Your task to perform on an android device: Show me recent news Image 0: 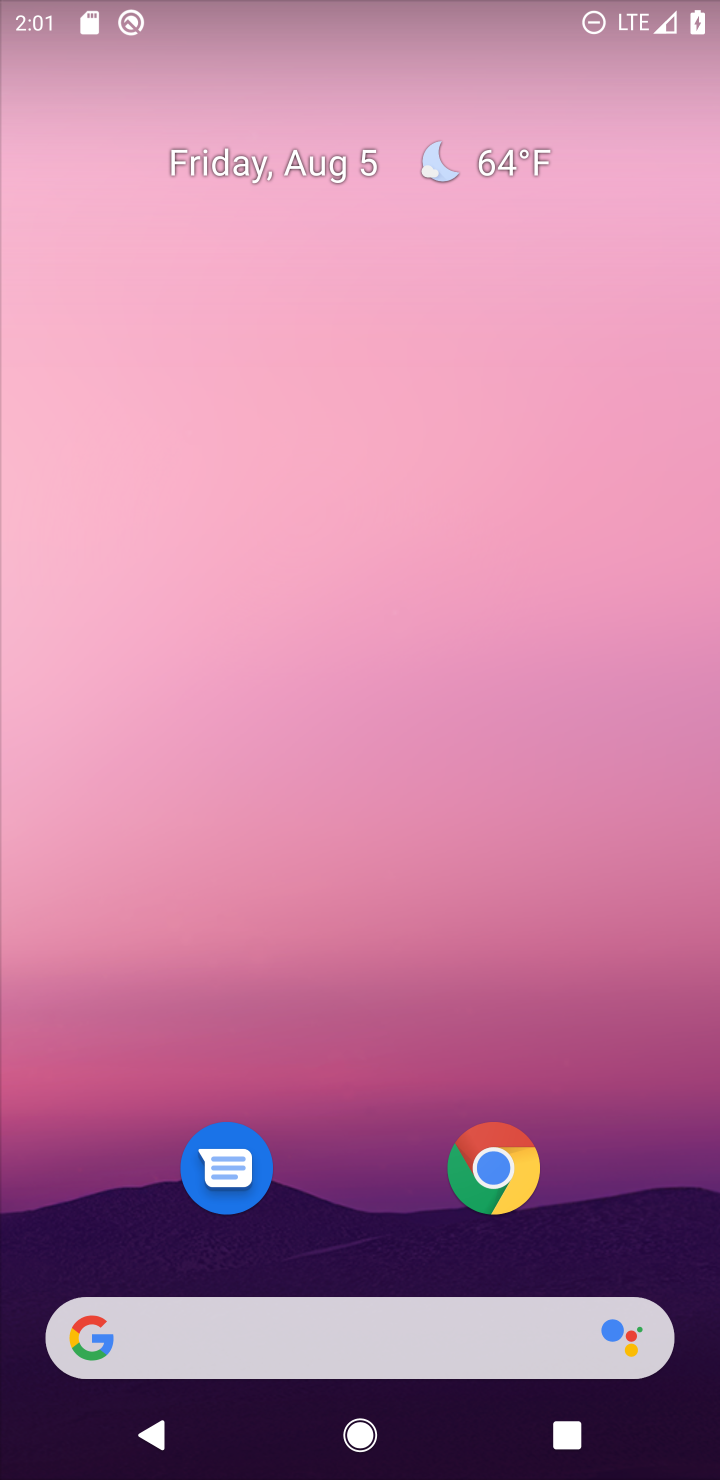
Step 0: drag from (622, 1229) to (415, 80)
Your task to perform on an android device: Show me recent news Image 1: 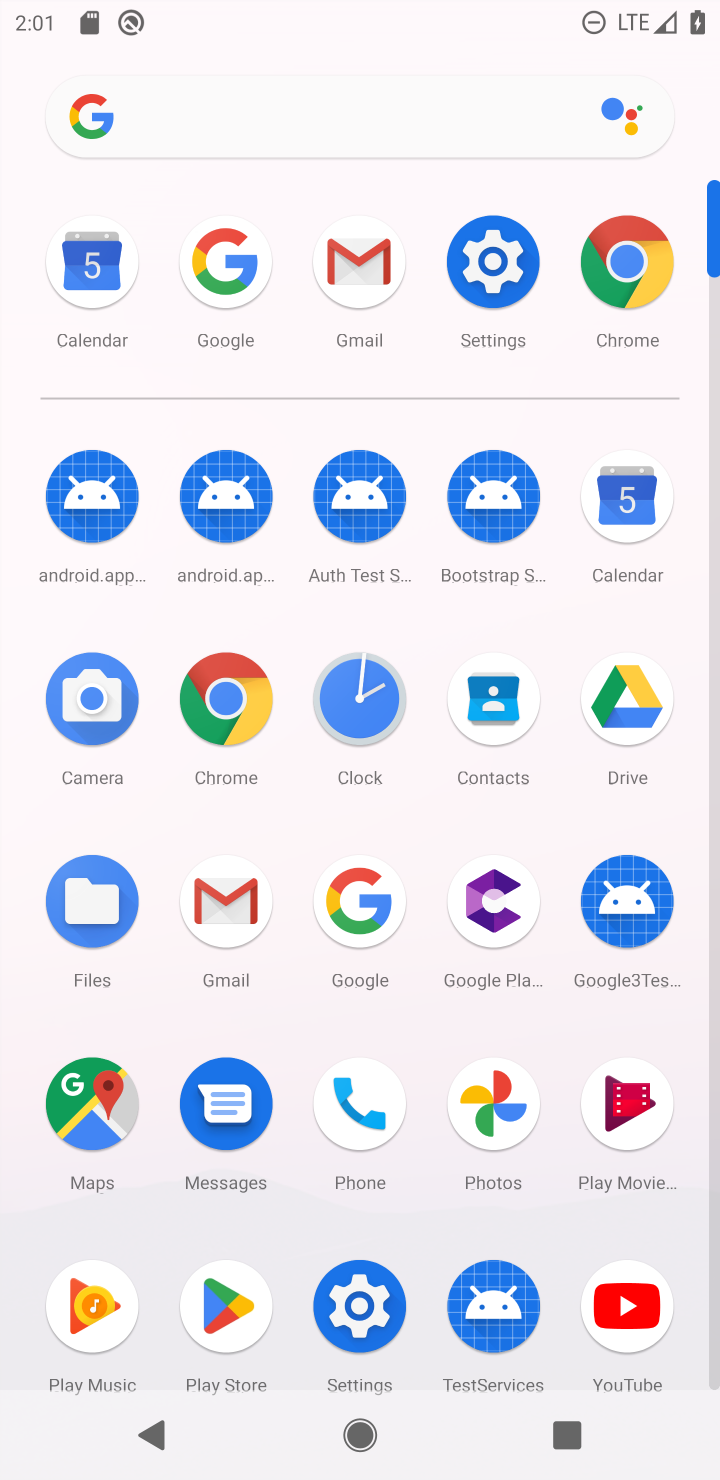
Step 1: click (355, 912)
Your task to perform on an android device: Show me recent news Image 2: 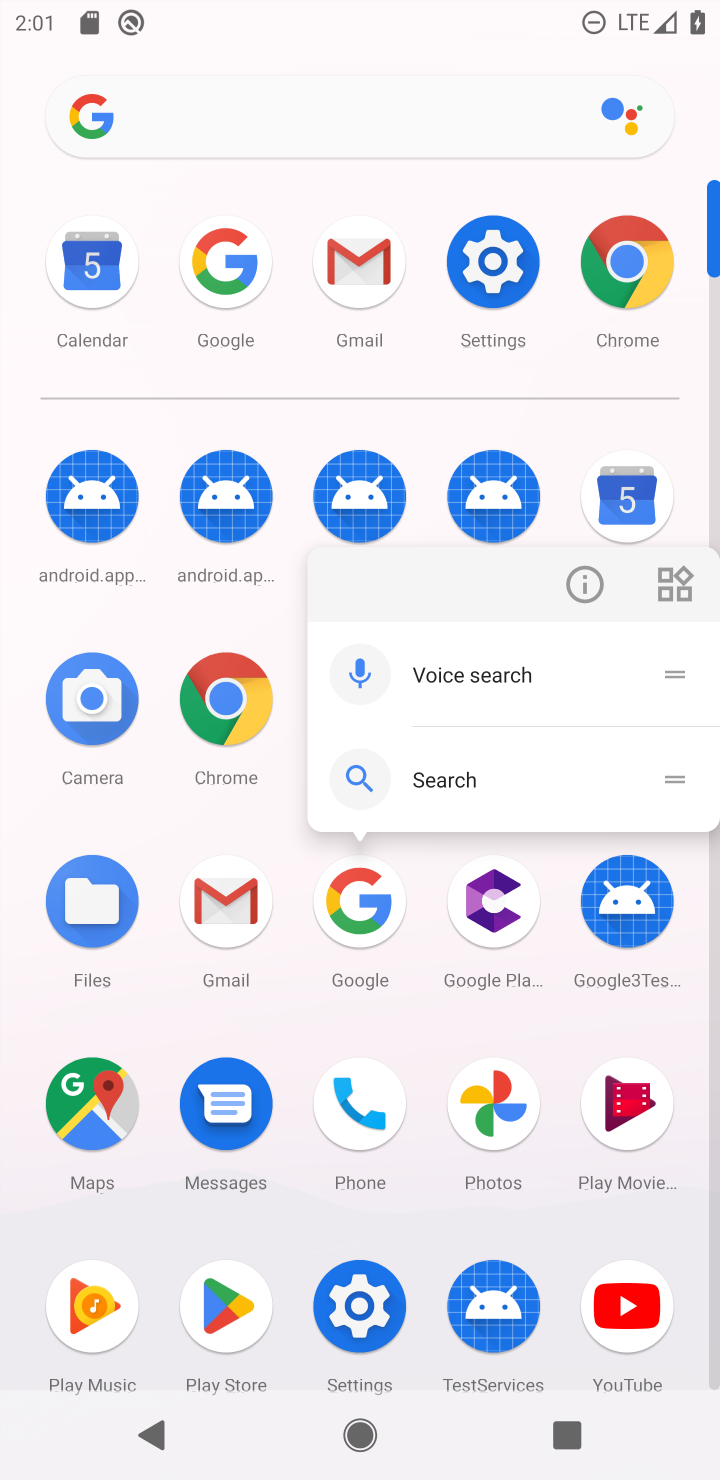
Step 2: click (355, 885)
Your task to perform on an android device: Show me recent news Image 3: 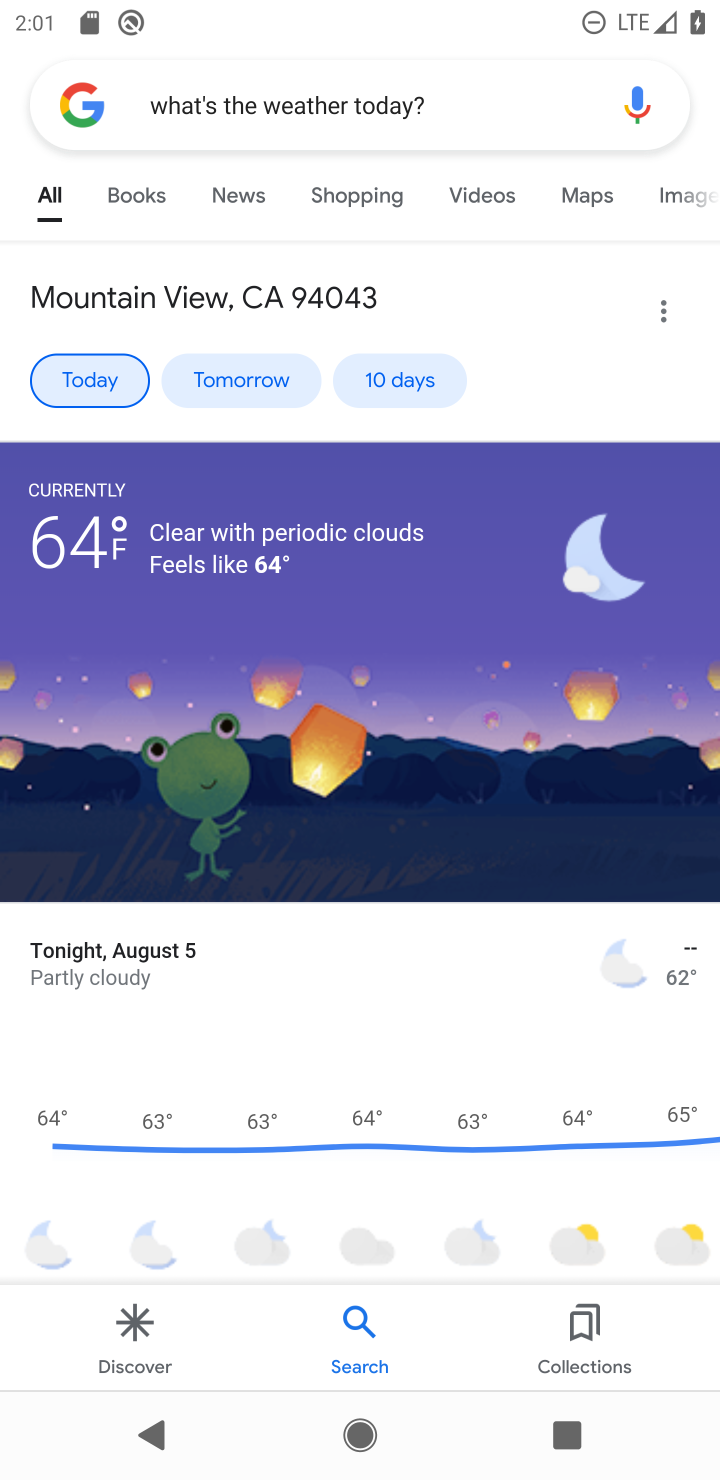
Step 3: press back button
Your task to perform on an android device: Show me recent news Image 4: 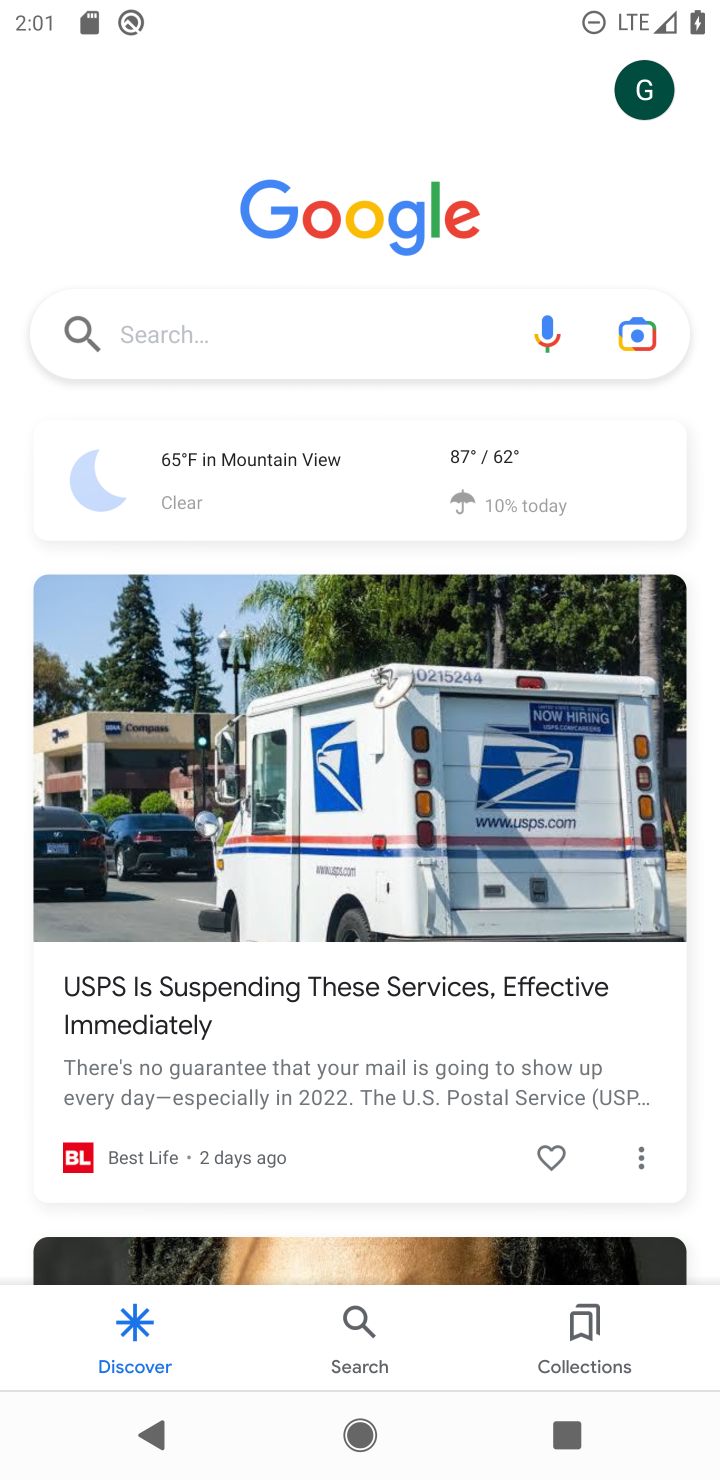
Step 4: click (204, 346)
Your task to perform on an android device: Show me recent news Image 5: 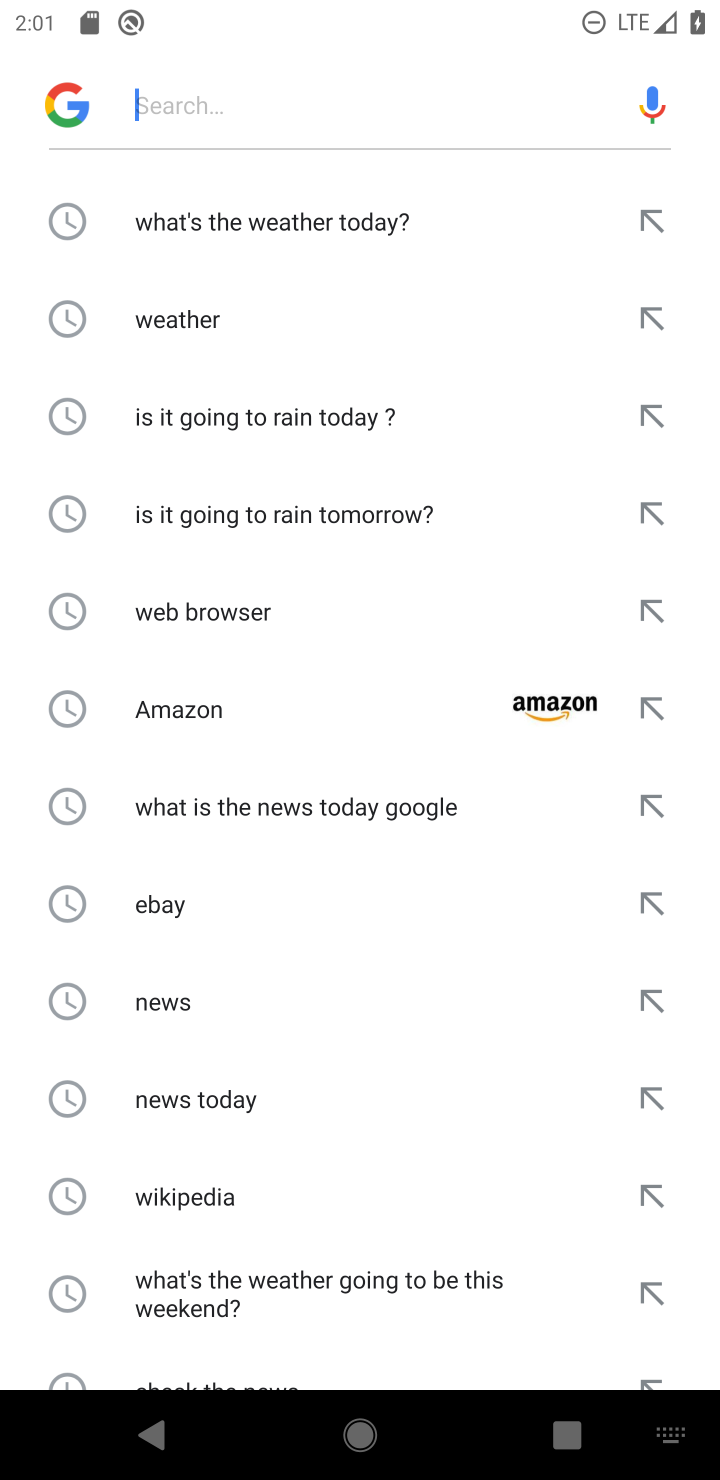
Step 5: type "Show me recent news"
Your task to perform on an android device: Show me recent news Image 6: 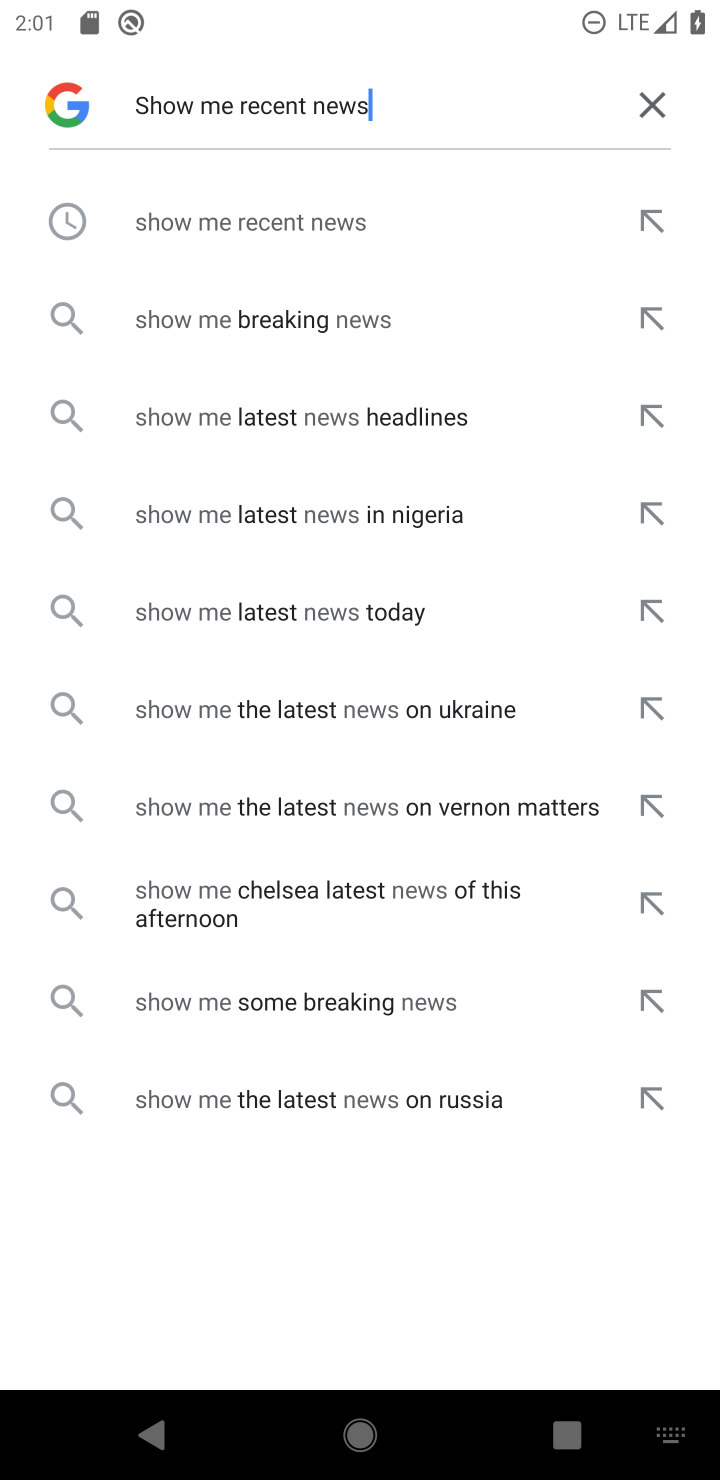
Step 6: click (330, 206)
Your task to perform on an android device: Show me recent news Image 7: 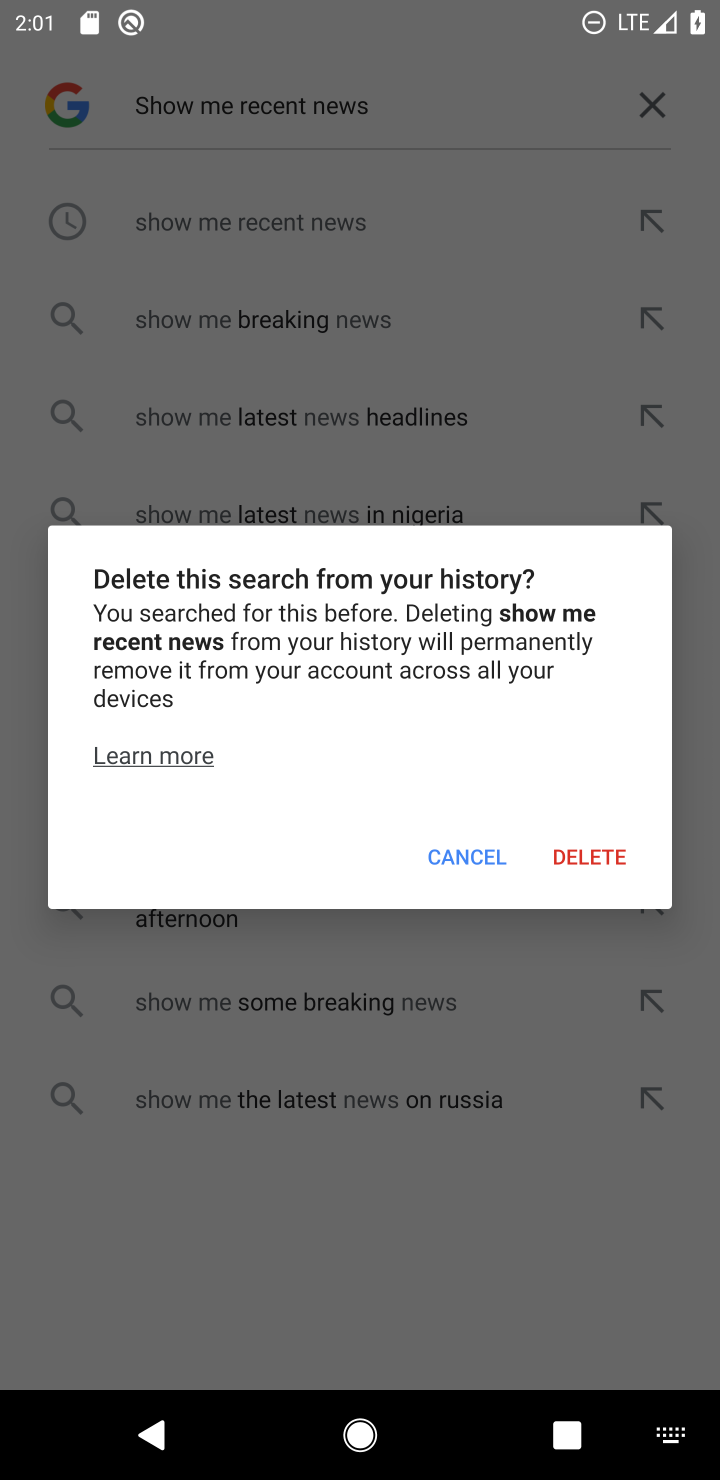
Step 7: click (464, 832)
Your task to perform on an android device: Show me recent news Image 8: 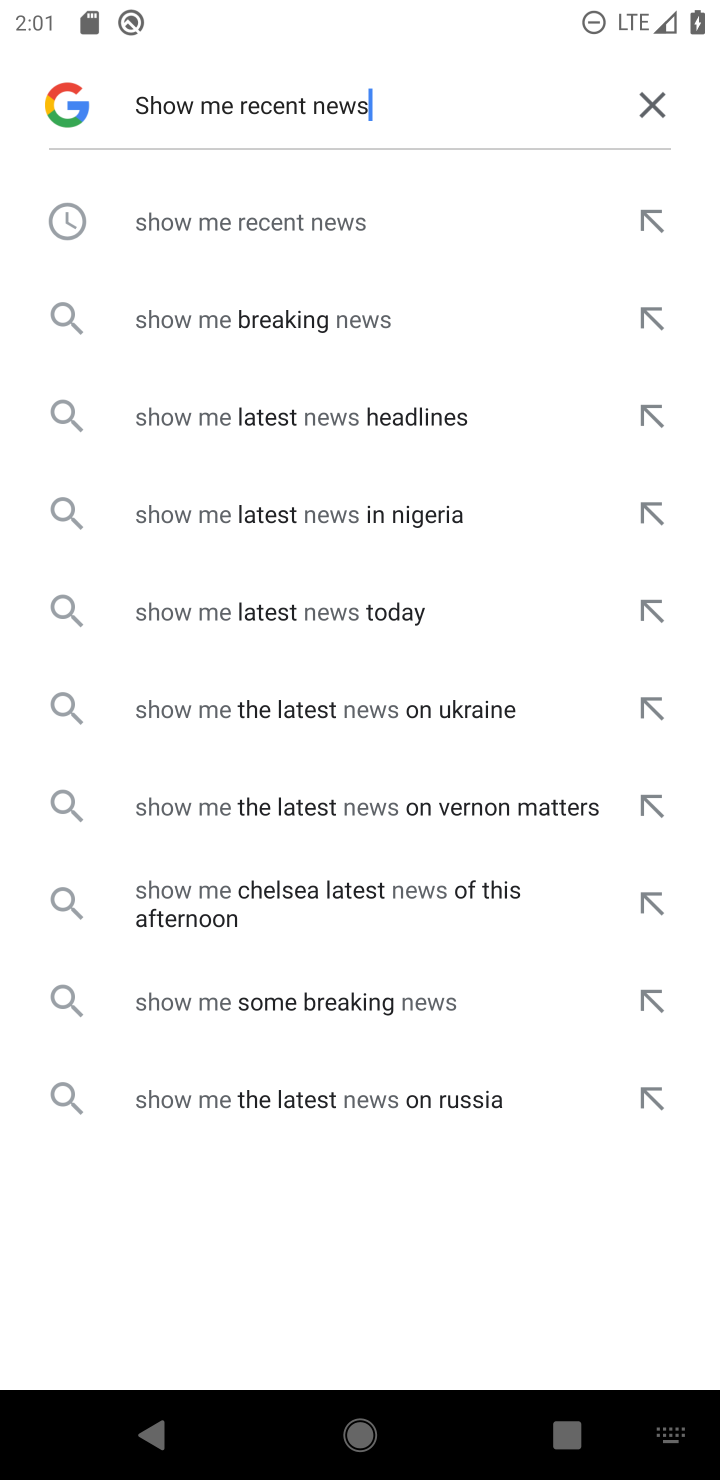
Step 8: click (319, 232)
Your task to perform on an android device: Show me recent news Image 9: 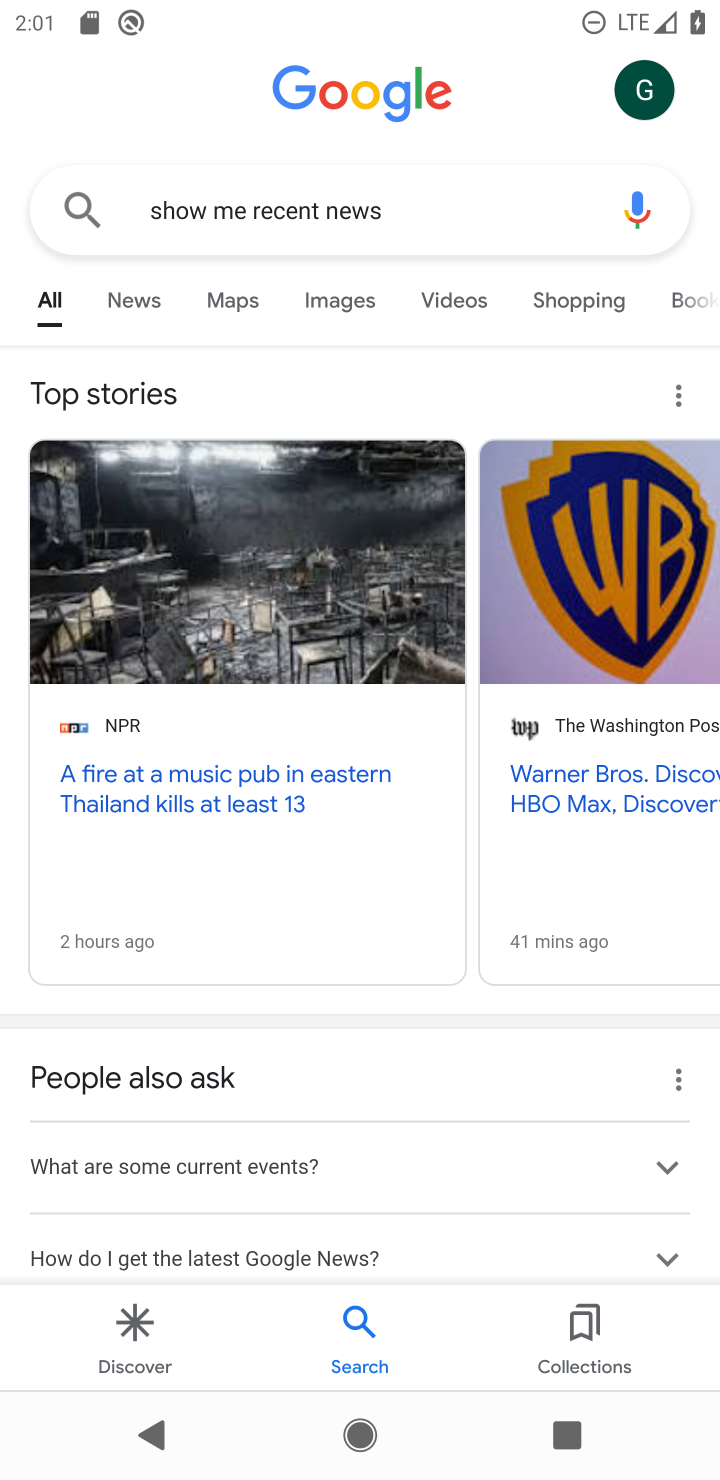
Step 9: task complete